Your task to perform on an android device: Open maps Image 0: 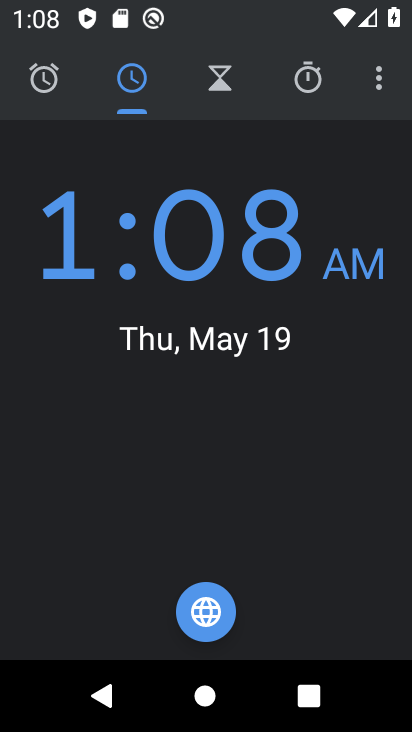
Step 0: press home button
Your task to perform on an android device: Open maps Image 1: 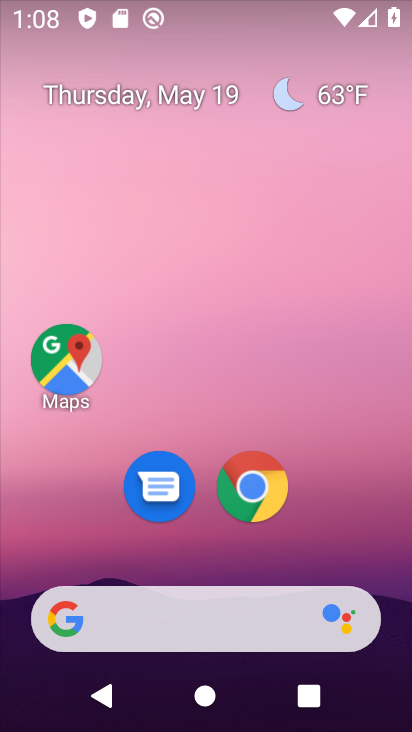
Step 1: click (61, 353)
Your task to perform on an android device: Open maps Image 2: 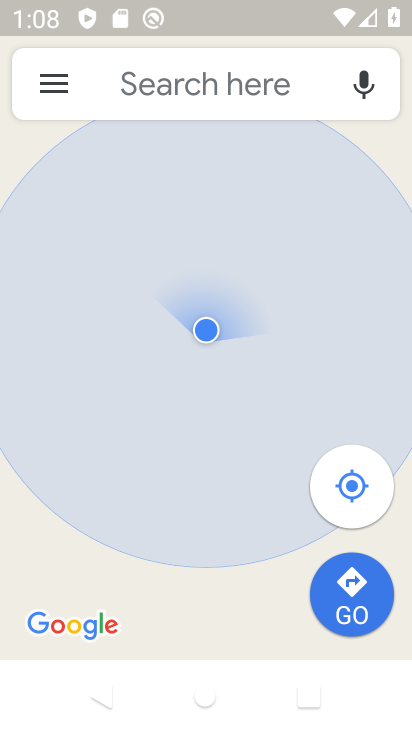
Step 2: task complete